Your task to perform on an android device: change timer sound Image 0: 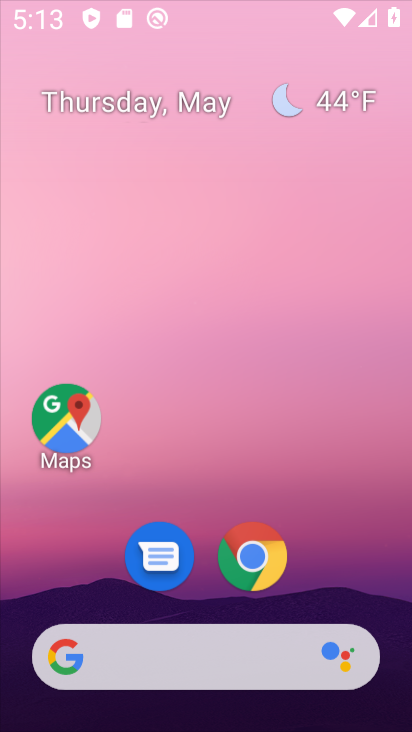
Step 0: drag from (325, 311) to (25, 233)
Your task to perform on an android device: change timer sound Image 1: 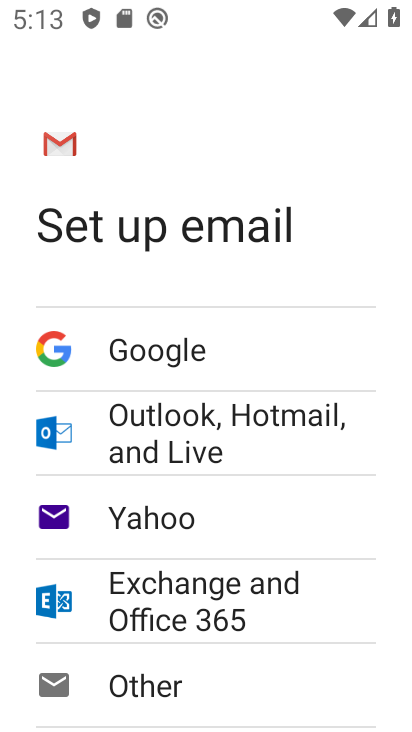
Step 1: press back button
Your task to perform on an android device: change timer sound Image 2: 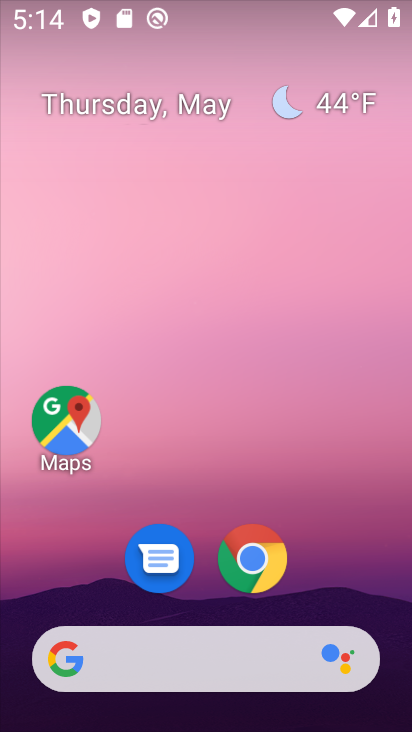
Step 2: drag from (361, 553) to (218, 50)
Your task to perform on an android device: change timer sound Image 3: 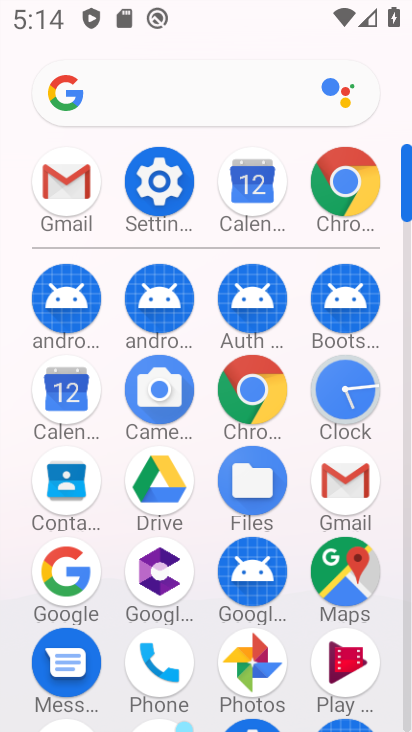
Step 3: click (343, 388)
Your task to perform on an android device: change timer sound Image 4: 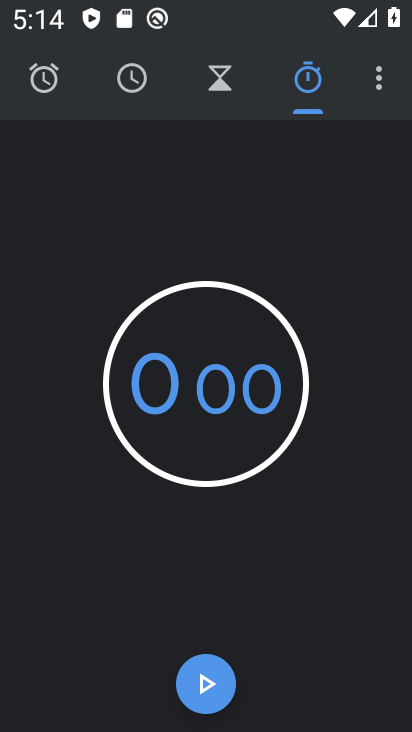
Step 4: drag from (377, 73) to (286, 149)
Your task to perform on an android device: change timer sound Image 5: 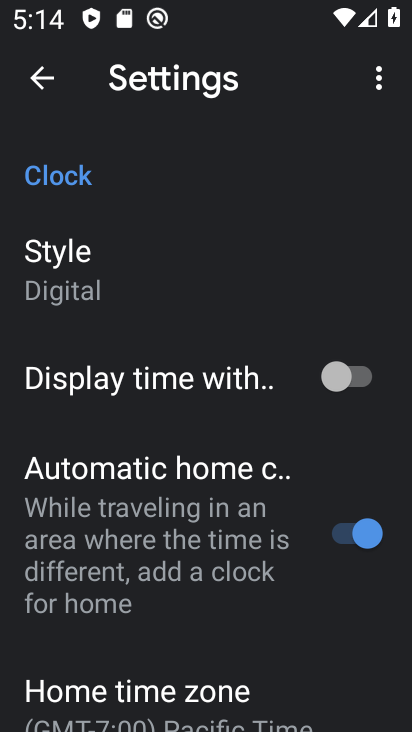
Step 5: click (46, 77)
Your task to perform on an android device: change timer sound Image 6: 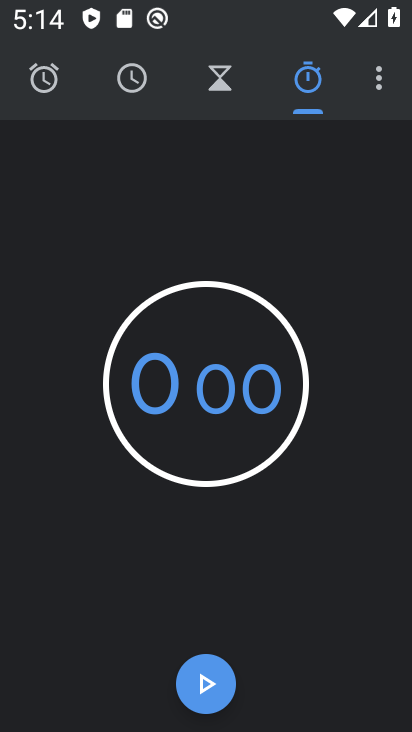
Step 6: click (228, 68)
Your task to perform on an android device: change timer sound Image 7: 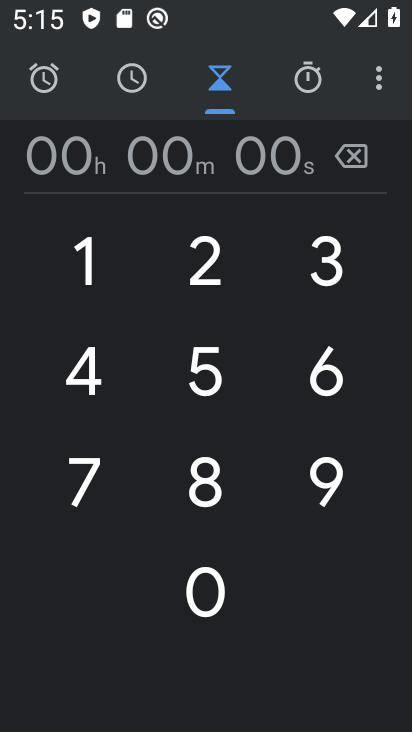
Step 7: click (385, 69)
Your task to perform on an android device: change timer sound Image 8: 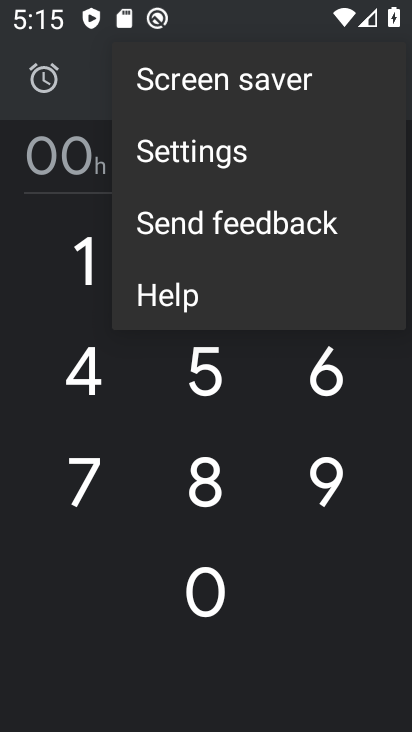
Step 8: click (233, 145)
Your task to perform on an android device: change timer sound Image 9: 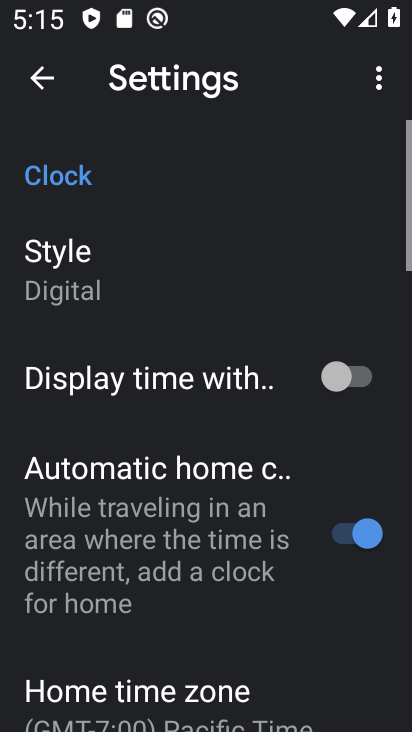
Step 9: drag from (230, 577) to (250, 132)
Your task to perform on an android device: change timer sound Image 10: 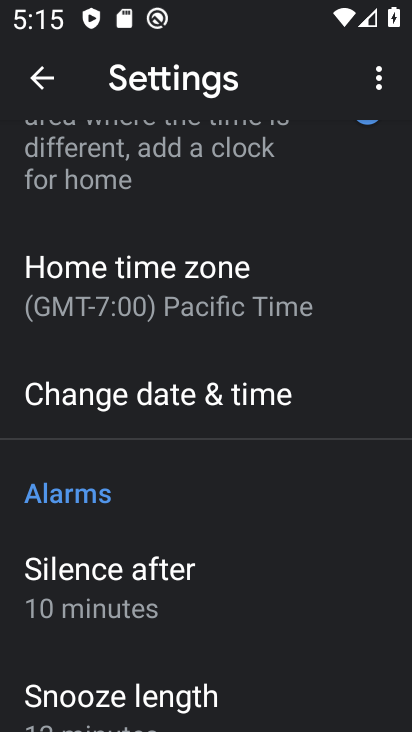
Step 10: drag from (261, 587) to (252, 151)
Your task to perform on an android device: change timer sound Image 11: 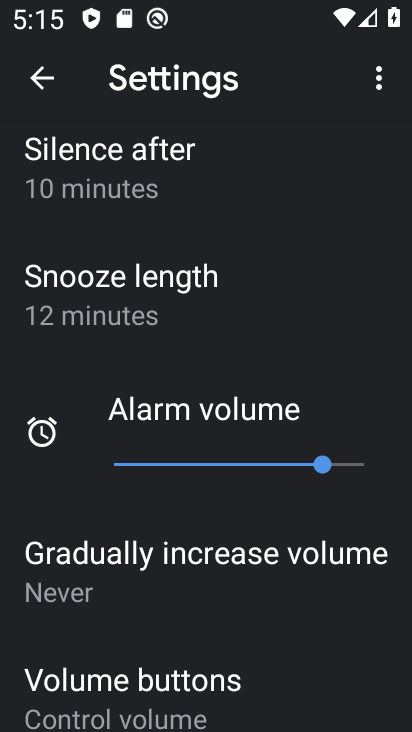
Step 11: drag from (251, 225) to (294, 661)
Your task to perform on an android device: change timer sound Image 12: 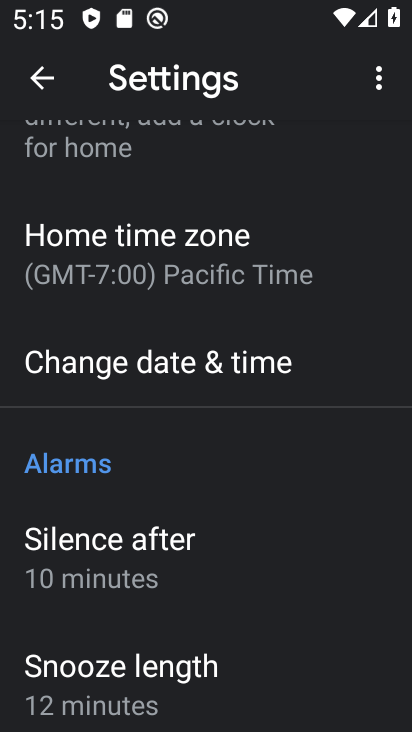
Step 12: drag from (281, 299) to (300, 658)
Your task to perform on an android device: change timer sound Image 13: 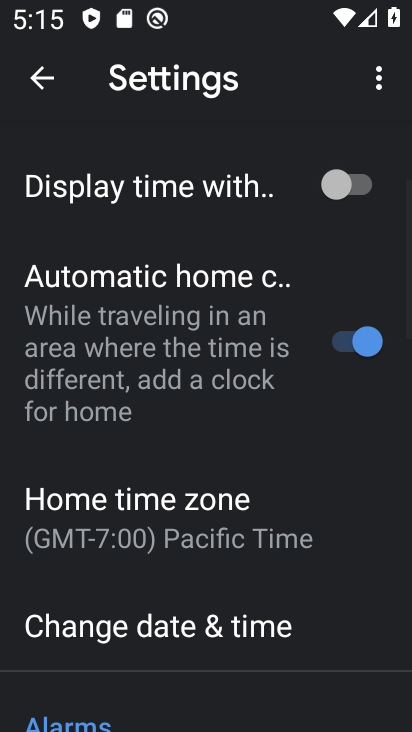
Step 13: drag from (199, 250) to (234, 603)
Your task to perform on an android device: change timer sound Image 14: 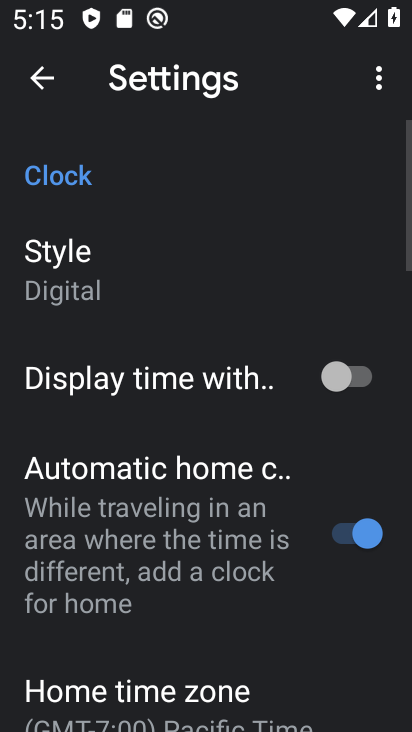
Step 14: drag from (271, 199) to (256, 497)
Your task to perform on an android device: change timer sound Image 15: 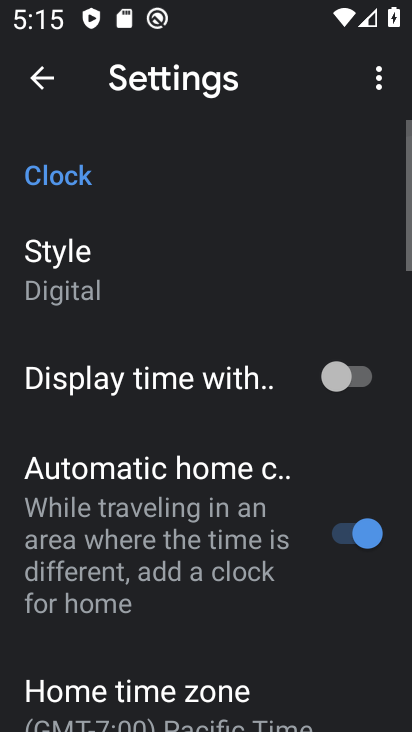
Step 15: drag from (215, 539) to (229, 112)
Your task to perform on an android device: change timer sound Image 16: 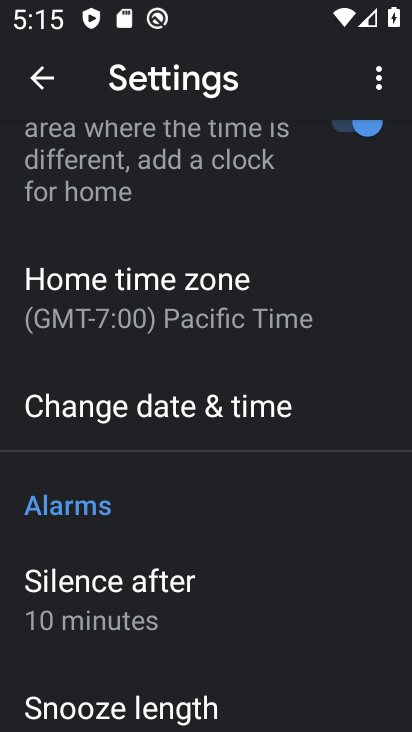
Step 16: drag from (192, 546) to (186, 132)
Your task to perform on an android device: change timer sound Image 17: 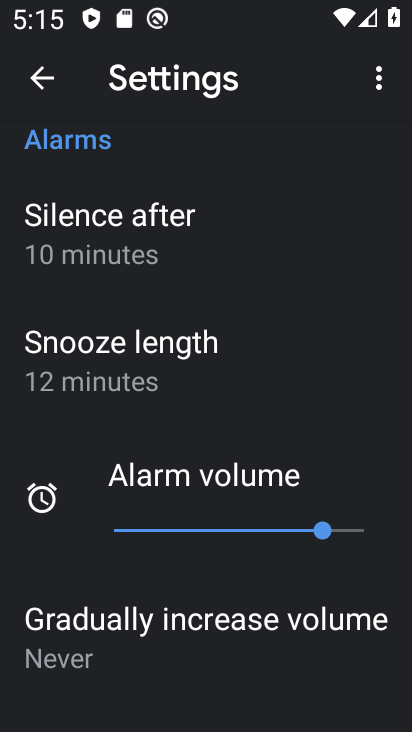
Step 17: drag from (185, 548) to (184, 187)
Your task to perform on an android device: change timer sound Image 18: 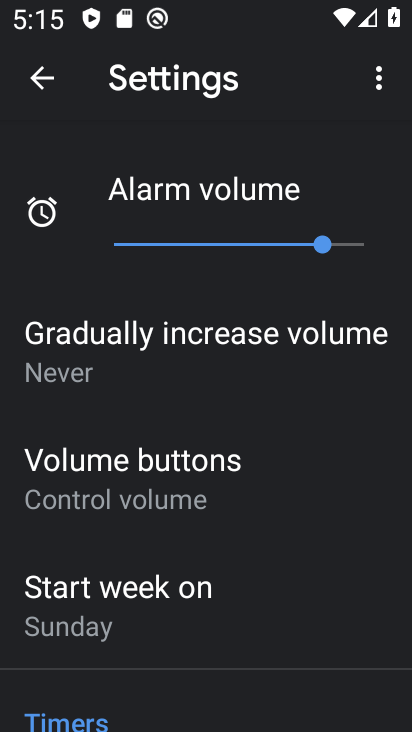
Step 18: drag from (215, 550) to (250, 165)
Your task to perform on an android device: change timer sound Image 19: 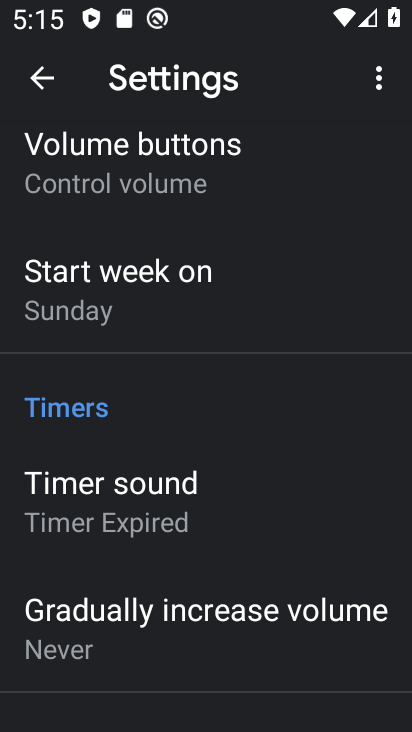
Step 19: drag from (259, 592) to (272, 297)
Your task to perform on an android device: change timer sound Image 20: 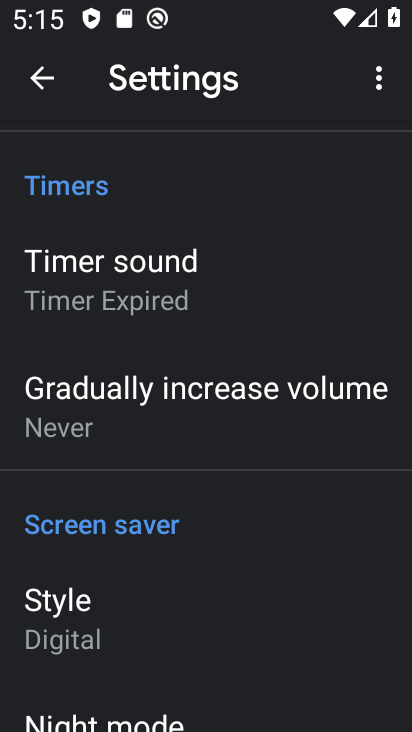
Step 20: click (206, 271)
Your task to perform on an android device: change timer sound Image 21: 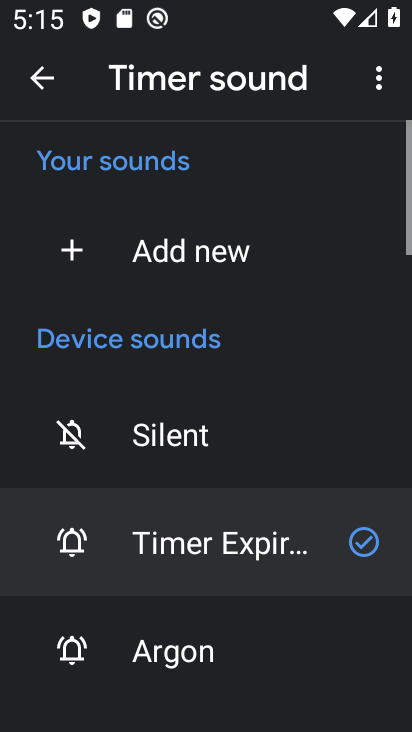
Step 21: click (203, 663)
Your task to perform on an android device: change timer sound Image 22: 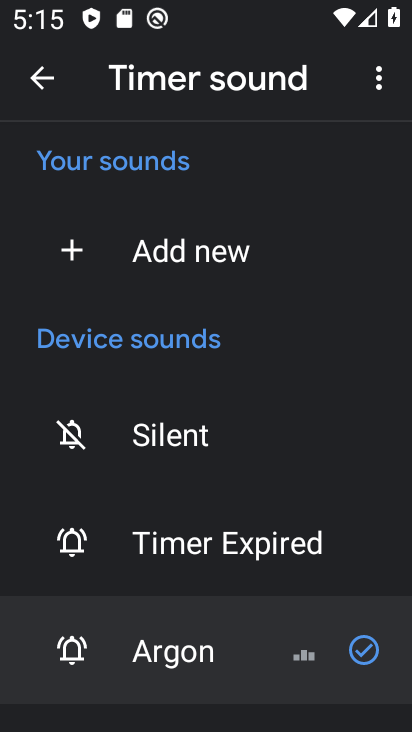
Step 22: task complete